Your task to perform on an android device: toggle notifications settings in the gmail app Image 0: 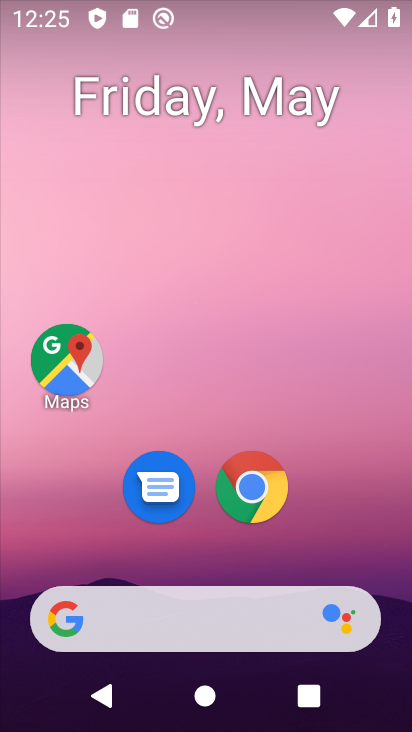
Step 0: drag from (175, 583) to (255, 107)
Your task to perform on an android device: toggle notifications settings in the gmail app Image 1: 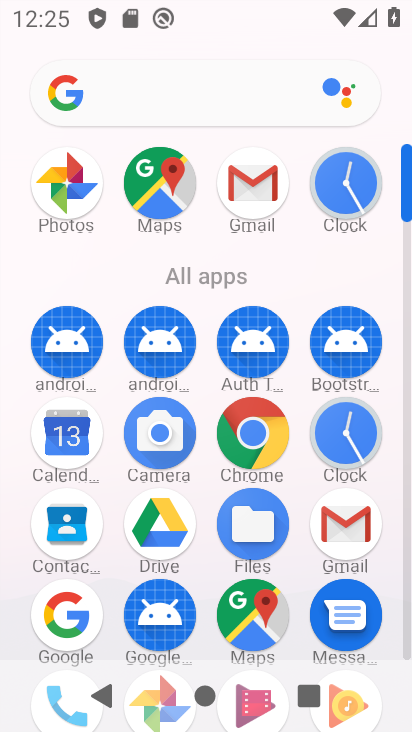
Step 1: drag from (164, 593) to (248, 365)
Your task to perform on an android device: toggle notifications settings in the gmail app Image 2: 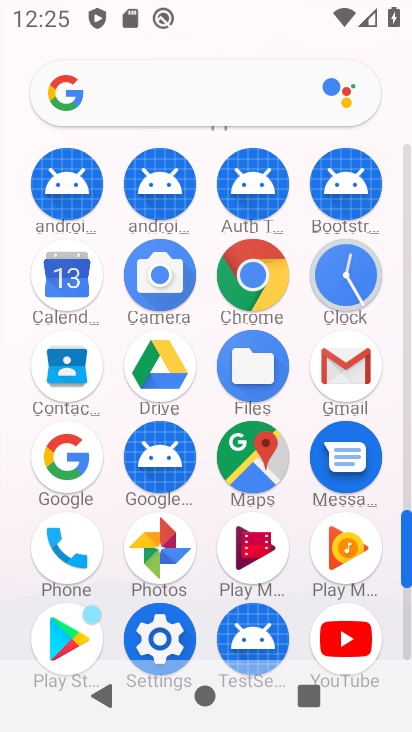
Step 2: click (337, 362)
Your task to perform on an android device: toggle notifications settings in the gmail app Image 3: 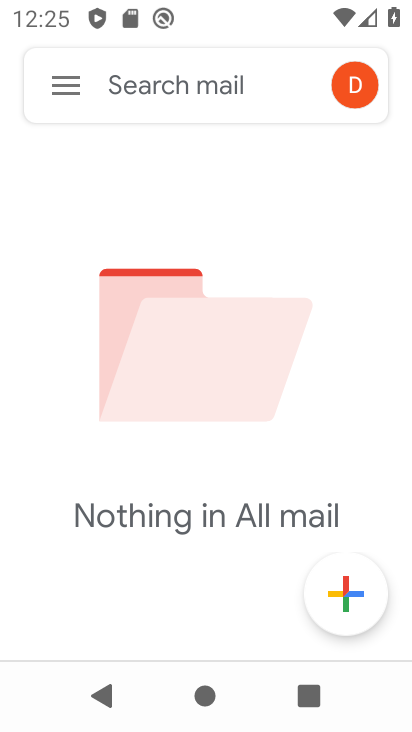
Step 3: click (68, 89)
Your task to perform on an android device: toggle notifications settings in the gmail app Image 4: 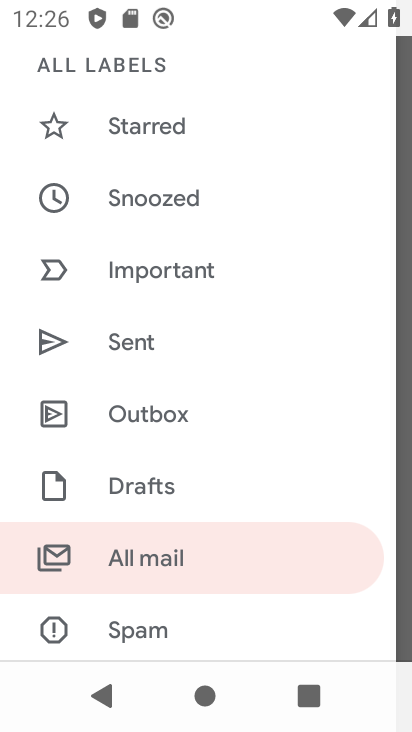
Step 4: drag from (204, 604) to (306, 207)
Your task to perform on an android device: toggle notifications settings in the gmail app Image 5: 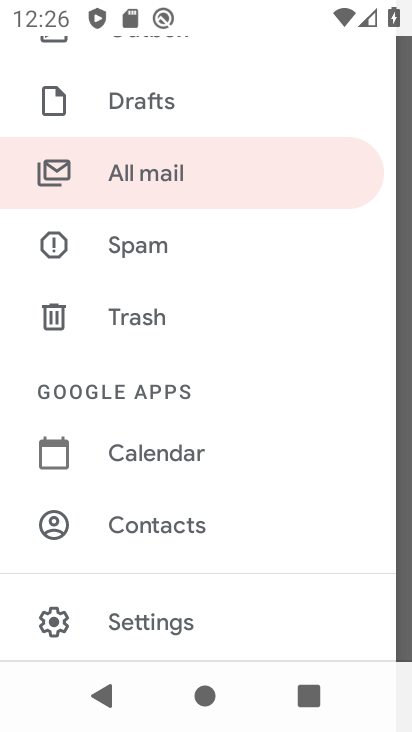
Step 5: click (180, 620)
Your task to perform on an android device: toggle notifications settings in the gmail app Image 6: 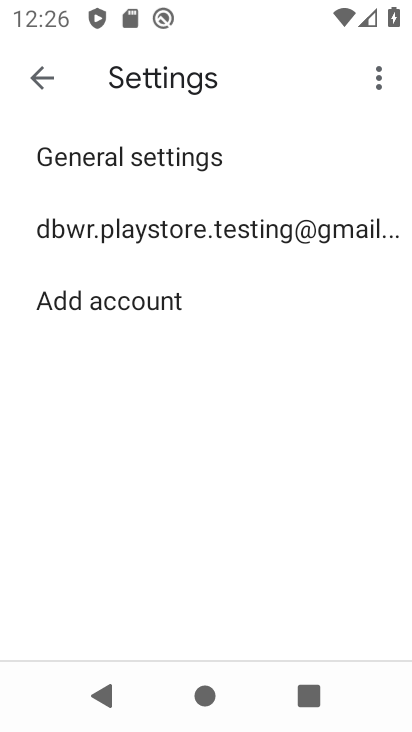
Step 6: click (327, 234)
Your task to perform on an android device: toggle notifications settings in the gmail app Image 7: 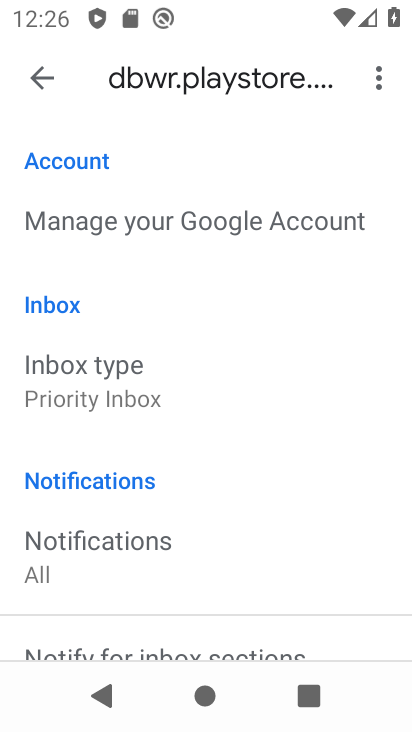
Step 7: drag from (258, 600) to (366, 226)
Your task to perform on an android device: toggle notifications settings in the gmail app Image 8: 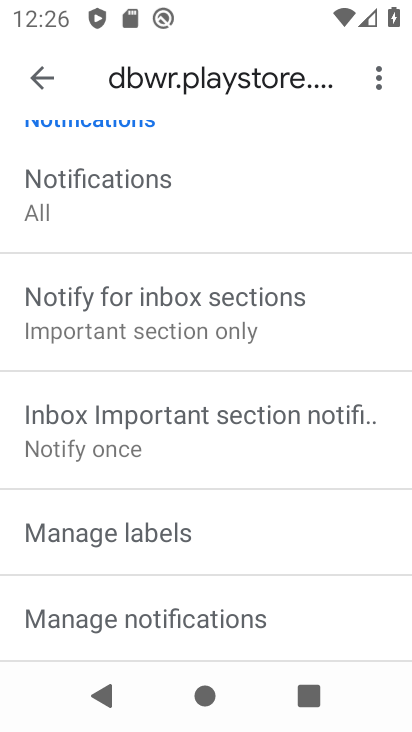
Step 8: click (192, 625)
Your task to perform on an android device: toggle notifications settings in the gmail app Image 9: 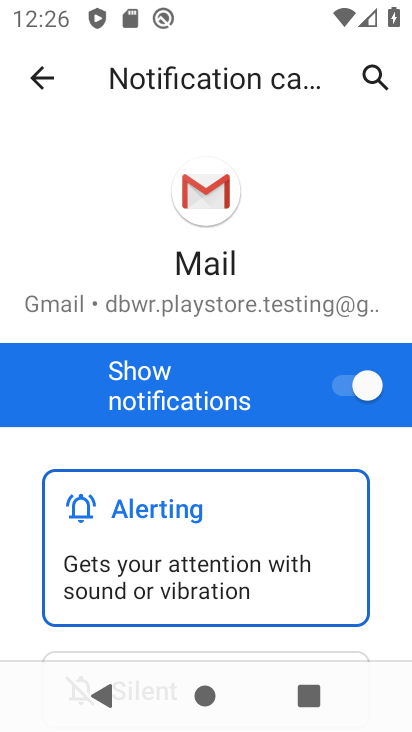
Step 9: click (327, 381)
Your task to perform on an android device: toggle notifications settings in the gmail app Image 10: 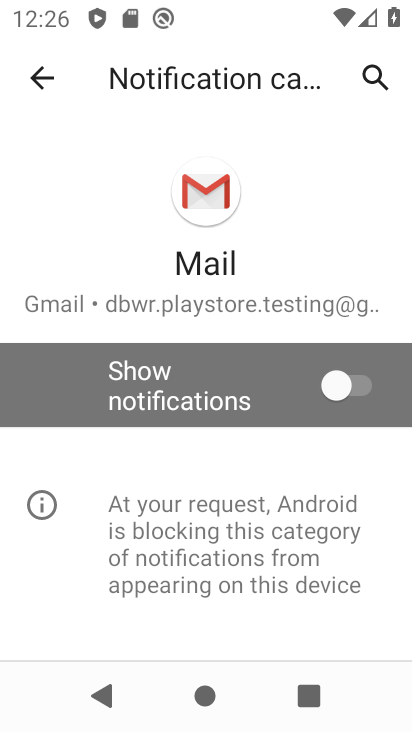
Step 10: task complete